Your task to perform on an android device: change the clock display to show seconds Image 0: 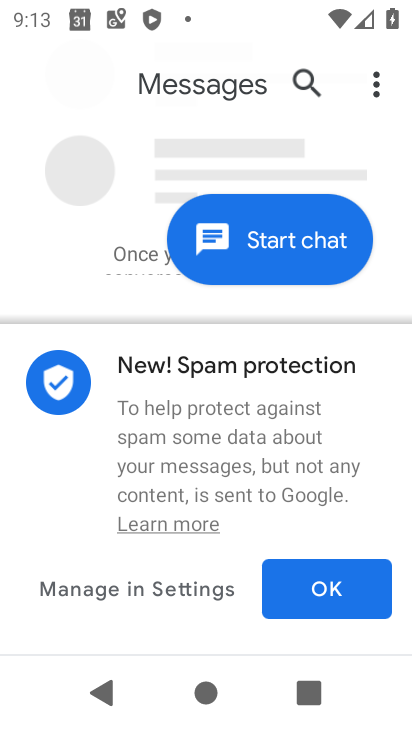
Step 0: press home button
Your task to perform on an android device: change the clock display to show seconds Image 1: 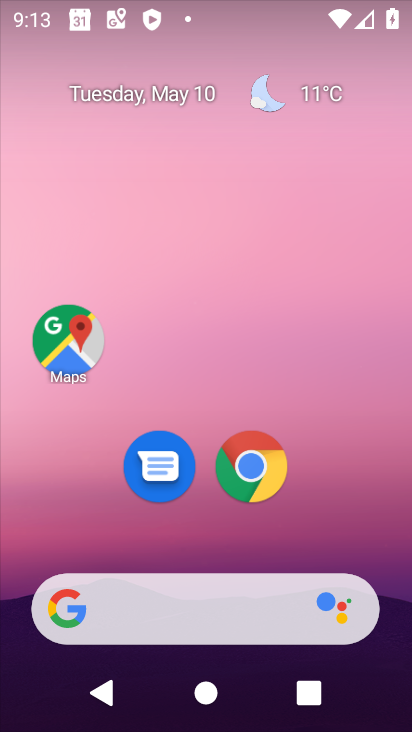
Step 1: drag from (349, 459) to (330, 44)
Your task to perform on an android device: change the clock display to show seconds Image 2: 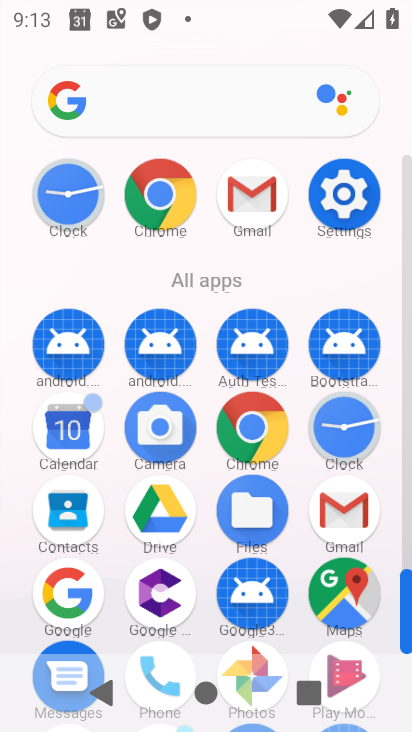
Step 2: click (71, 216)
Your task to perform on an android device: change the clock display to show seconds Image 3: 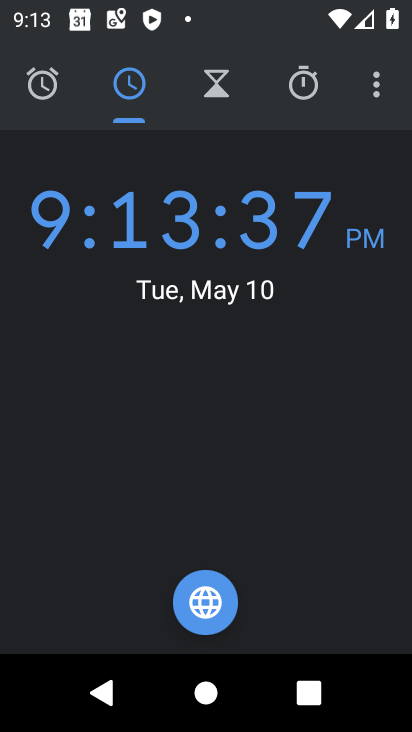
Step 3: click (366, 94)
Your task to perform on an android device: change the clock display to show seconds Image 4: 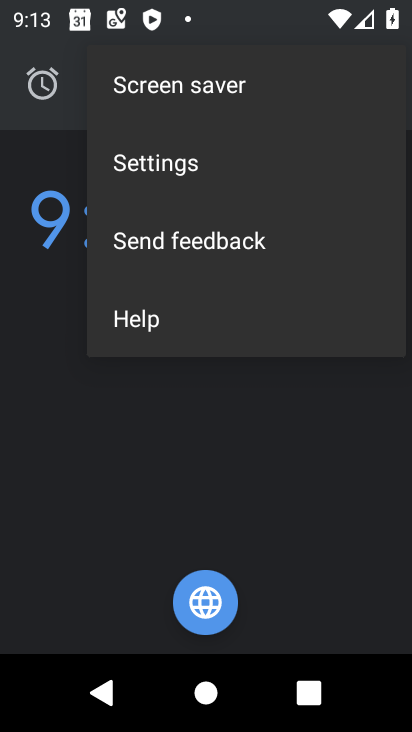
Step 4: click (135, 177)
Your task to perform on an android device: change the clock display to show seconds Image 5: 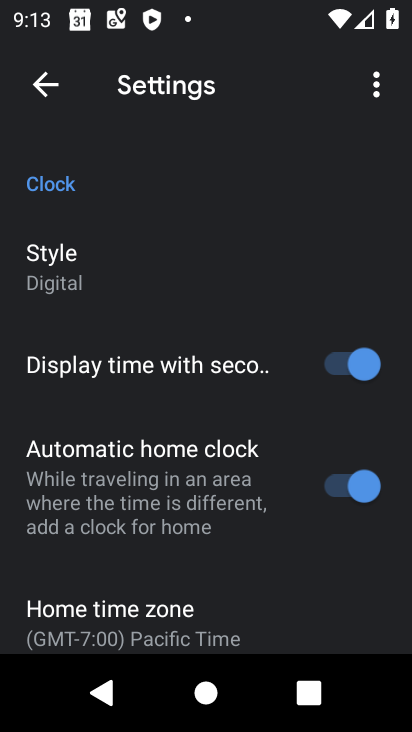
Step 5: click (341, 363)
Your task to perform on an android device: change the clock display to show seconds Image 6: 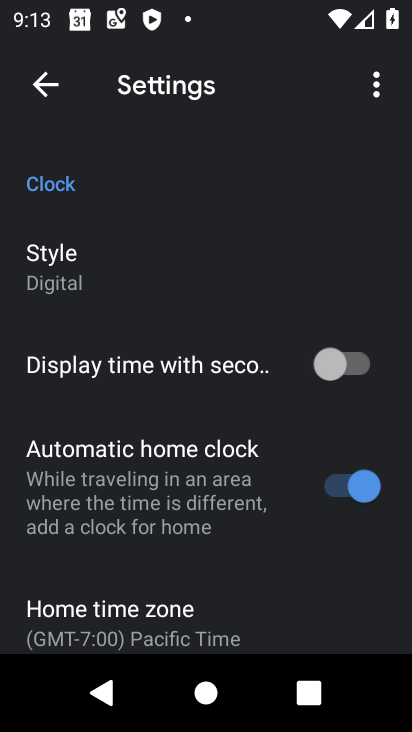
Step 6: task complete